Your task to perform on an android device: set an alarm Image 0: 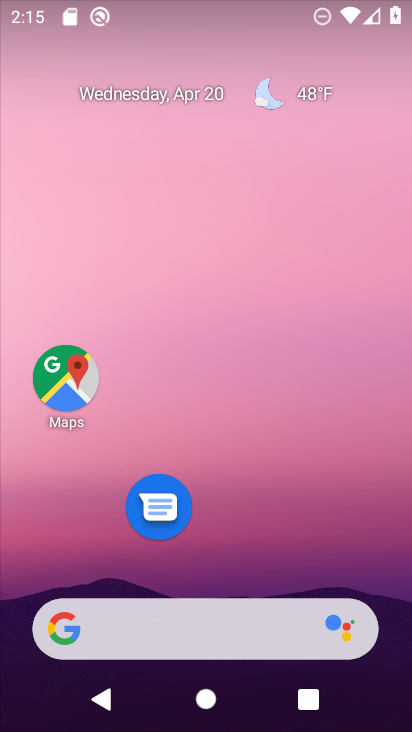
Step 0: drag from (201, 711) to (191, 122)
Your task to perform on an android device: set an alarm Image 1: 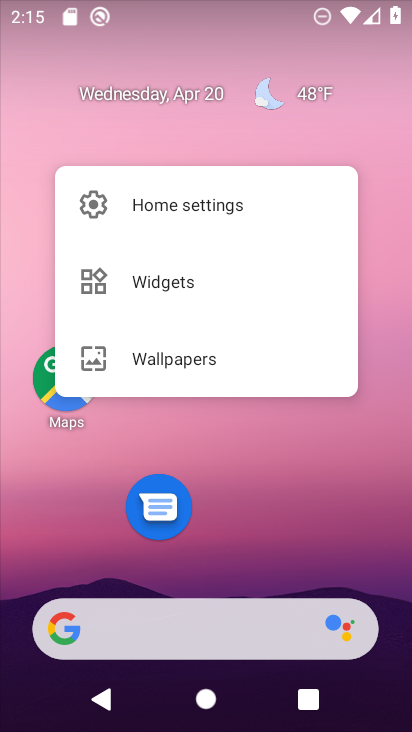
Step 1: drag from (215, 726) to (215, 152)
Your task to perform on an android device: set an alarm Image 2: 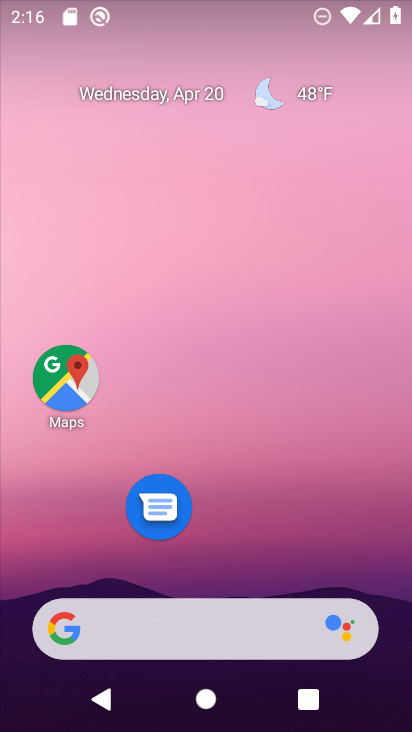
Step 2: drag from (209, 712) to (200, 213)
Your task to perform on an android device: set an alarm Image 3: 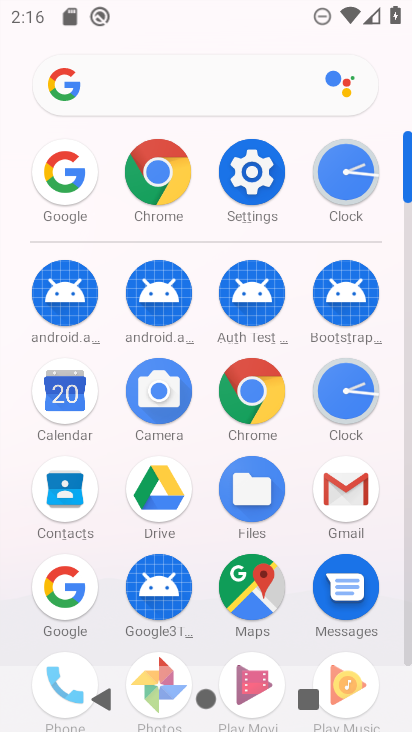
Step 3: click (340, 381)
Your task to perform on an android device: set an alarm Image 4: 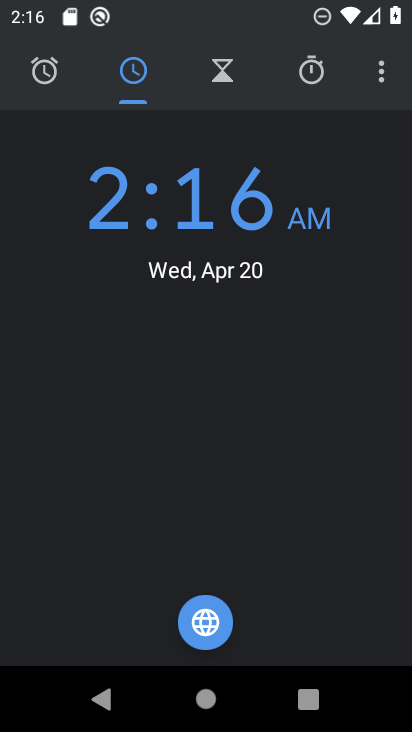
Step 4: click (47, 69)
Your task to perform on an android device: set an alarm Image 5: 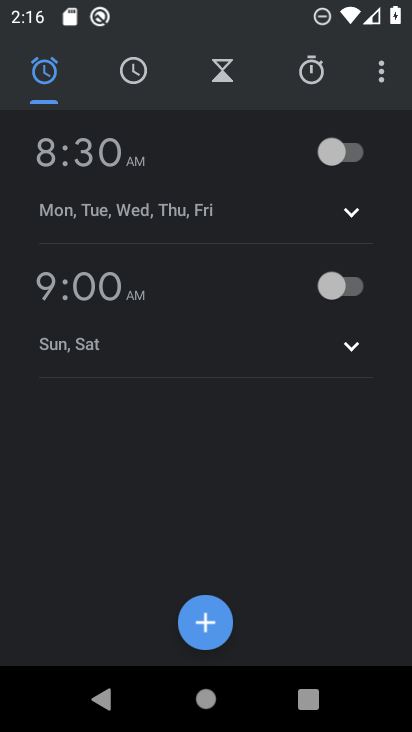
Step 5: click (202, 623)
Your task to perform on an android device: set an alarm Image 6: 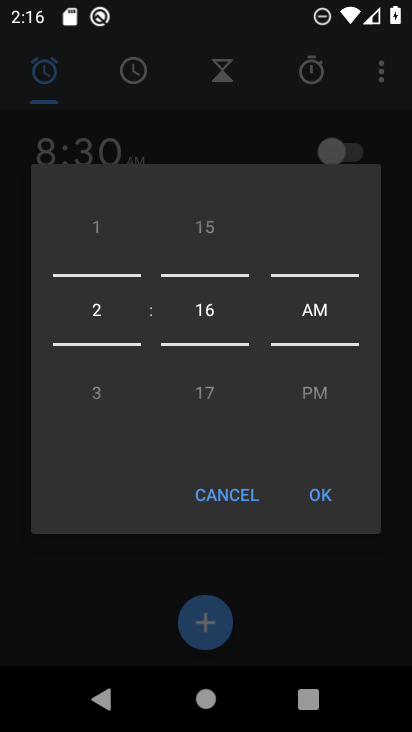
Step 6: drag from (97, 226) to (89, 410)
Your task to perform on an android device: set an alarm Image 7: 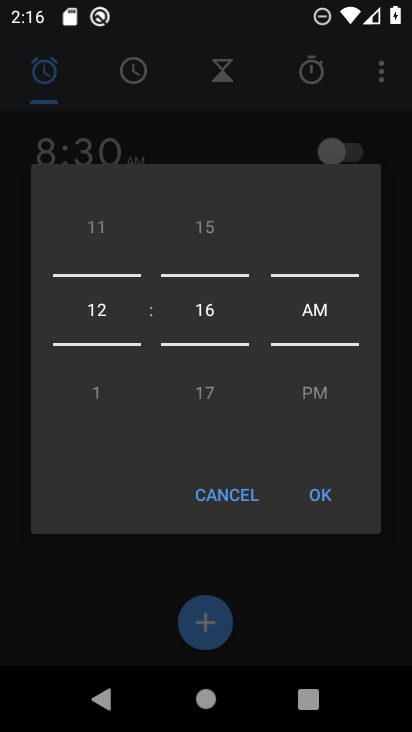
Step 7: drag from (211, 229) to (211, 416)
Your task to perform on an android device: set an alarm Image 8: 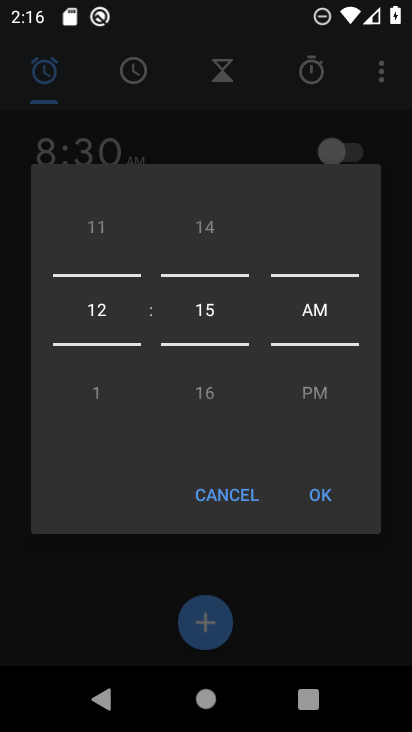
Step 8: drag from (319, 401) to (293, 196)
Your task to perform on an android device: set an alarm Image 9: 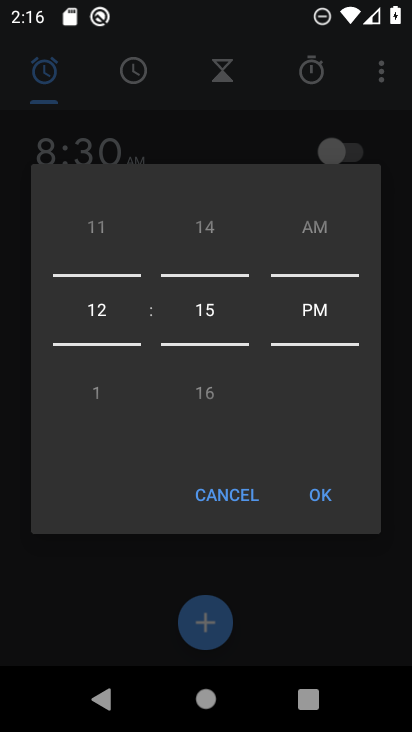
Step 9: click (324, 494)
Your task to perform on an android device: set an alarm Image 10: 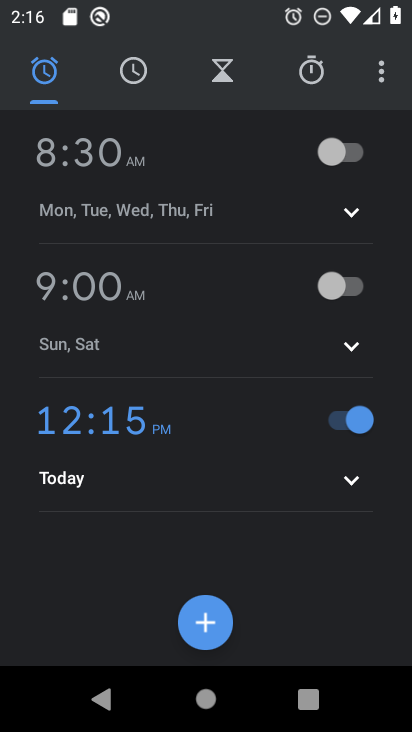
Step 10: task complete